Your task to perform on an android device: open sync settings in chrome Image 0: 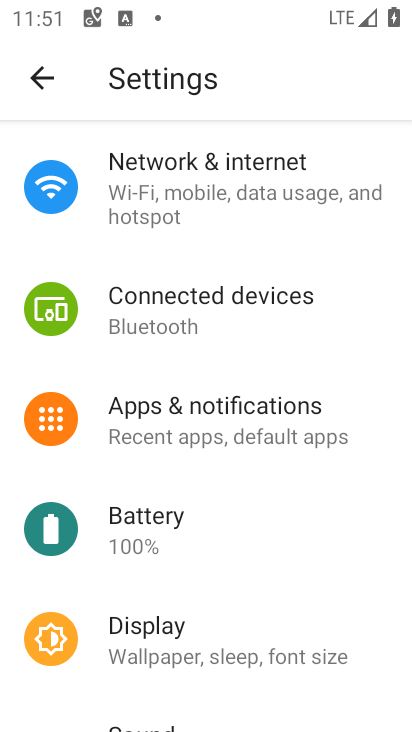
Step 0: press home button
Your task to perform on an android device: open sync settings in chrome Image 1: 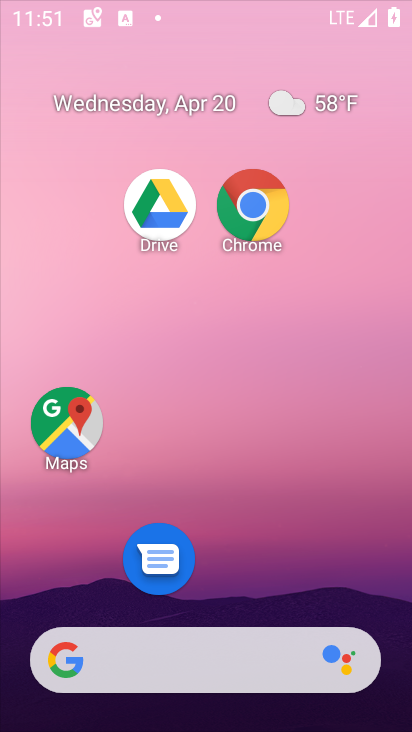
Step 1: drag from (246, 692) to (313, 3)
Your task to perform on an android device: open sync settings in chrome Image 2: 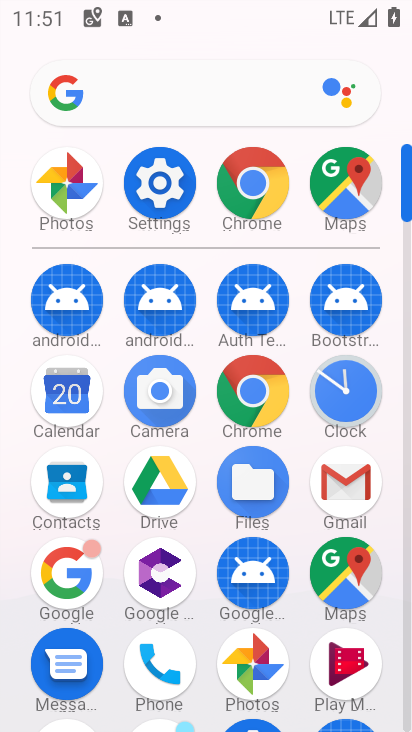
Step 2: click (265, 402)
Your task to perform on an android device: open sync settings in chrome Image 3: 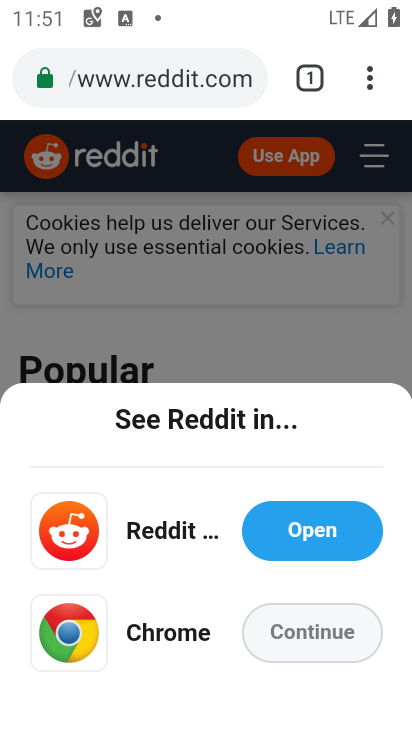
Step 3: press back button
Your task to perform on an android device: open sync settings in chrome Image 4: 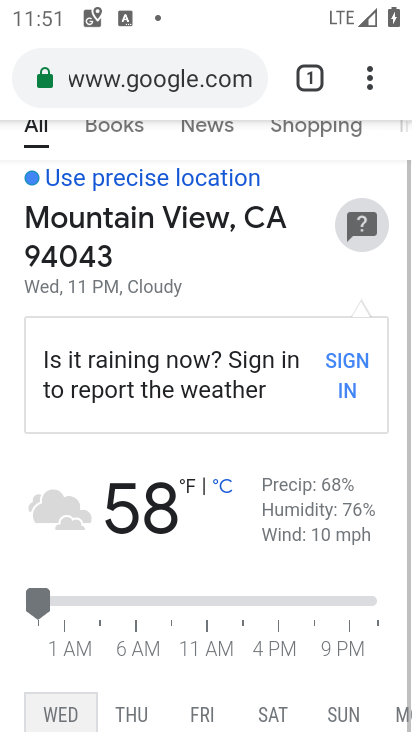
Step 4: drag from (371, 70) to (148, 617)
Your task to perform on an android device: open sync settings in chrome Image 5: 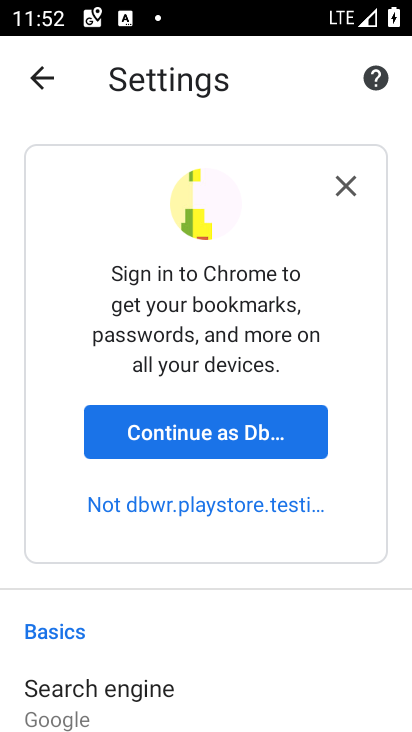
Step 5: drag from (165, 610) to (175, 68)
Your task to perform on an android device: open sync settings in chrome Image 6: 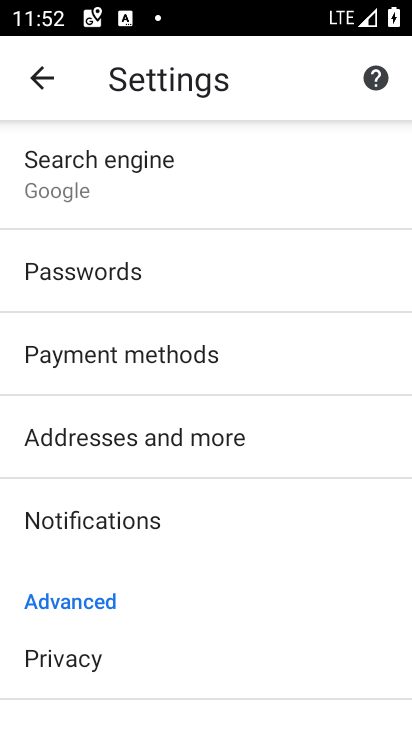
Step 6: drag from (155, 595) to (154, 67)
Your task to perform on an android device: open sync settings in chrome Image 7: 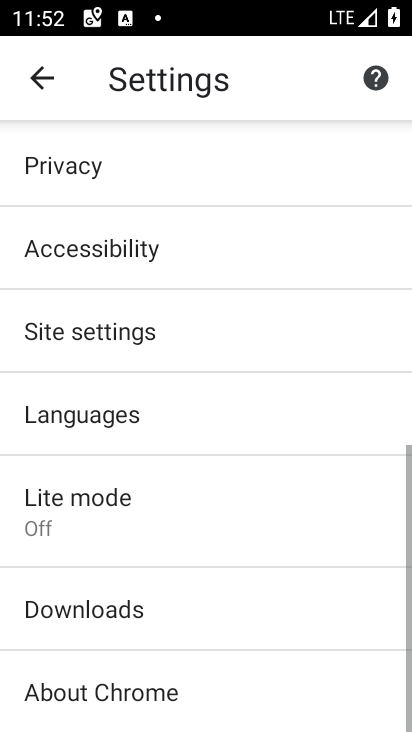
Step 7: click (151, 331)
Your task to perform on an android device: open sync settings in chrome Image 8: 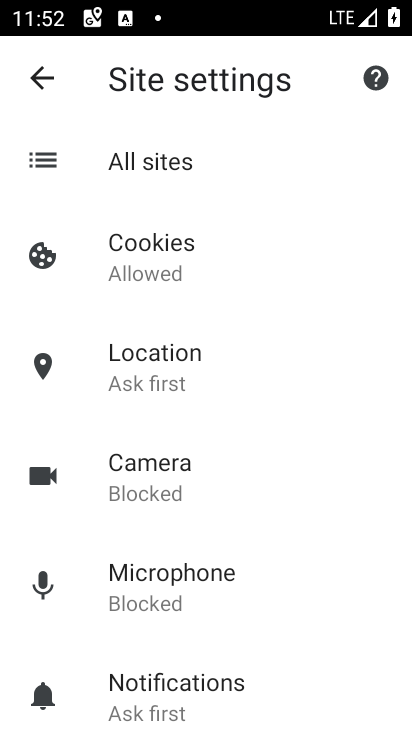
Step 8: drag from (205, 640) to (228, 134)
Your task to perform on an android device: open sync settings in chrome Image 9: 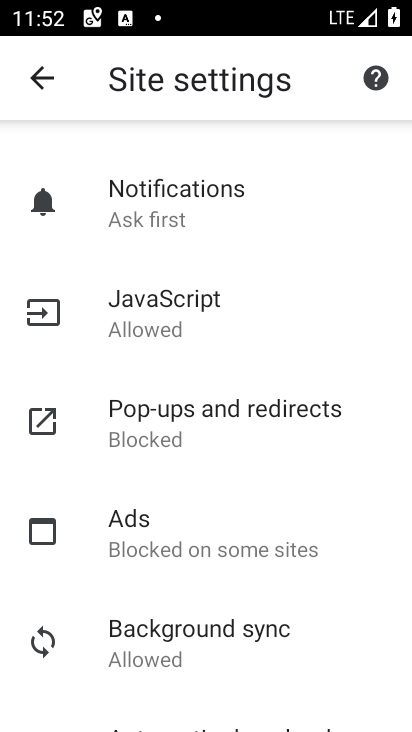
Step 9: click (198, 635)
Your task to perform on an android device: open sync settings in chrome Image 10: 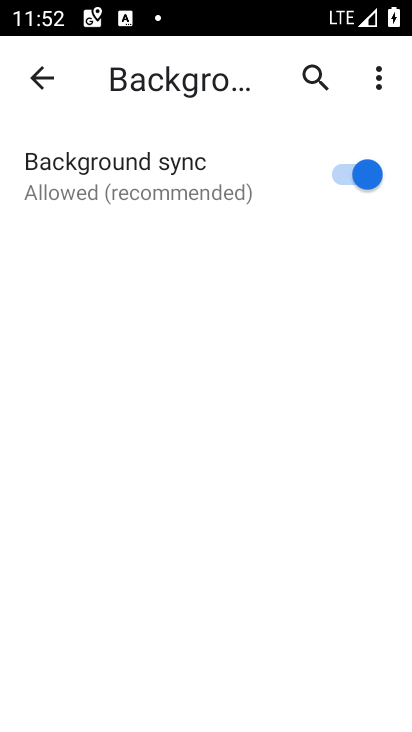
Step 10: task complete